Your task to perform on an android device: Open Maps and search for coffee Image 0: 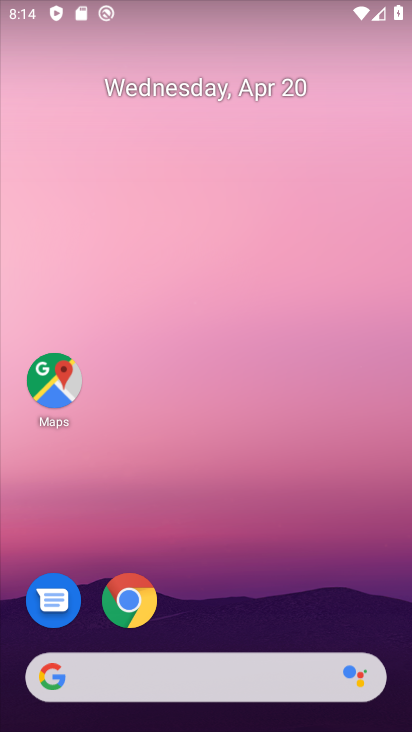
Step 0: click (49, 385)
Your task to perform on an android device: Open Maps and search for coffee Image 1: 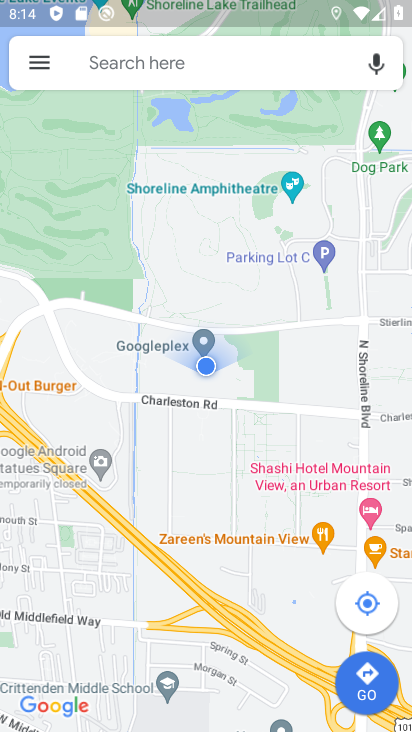
Step 1: click (159, 62)
Your task to perform on an android device: Open Maps and search for coffee Image 2: 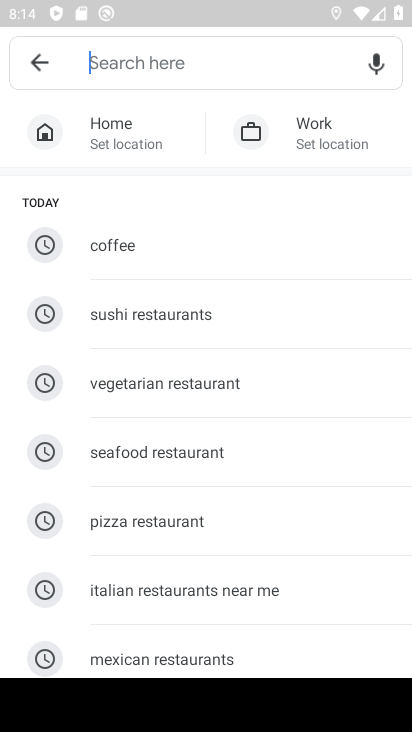
Step 2: click (98, 241)
Your task to perform on an android device: Open Maps and search for coffee Image 3: 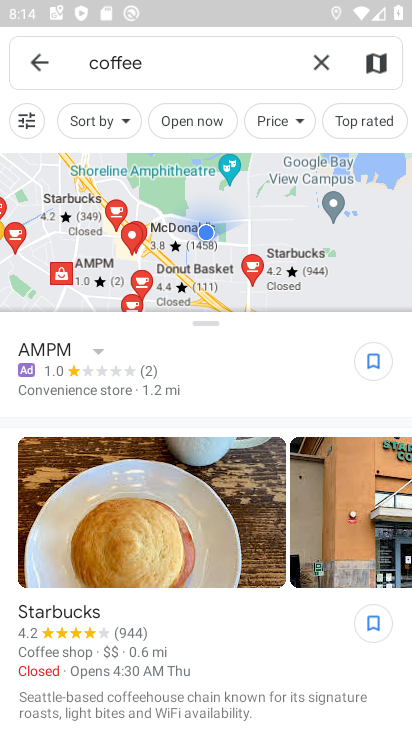
Step 3: task complete